Your task to perform on an android device: make emails show in primary in the gmail app Image 0: 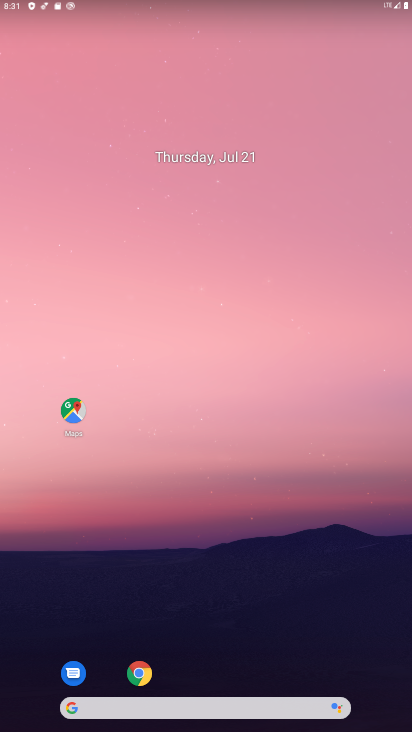
Step 0: drag from (182, 662) to (193, 264)
Your task to perform on an android device: make emails show in primary in the gmail app Image 1: 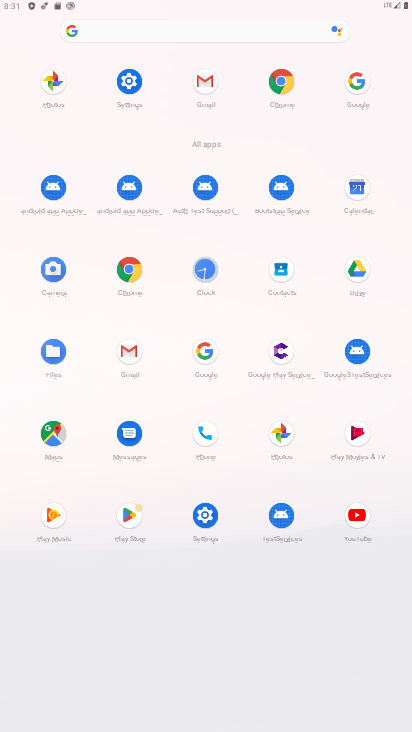
Step 1: click (206, 88)
Your task to perform on an android device: make emails show in primary in the gmail app Image 2: 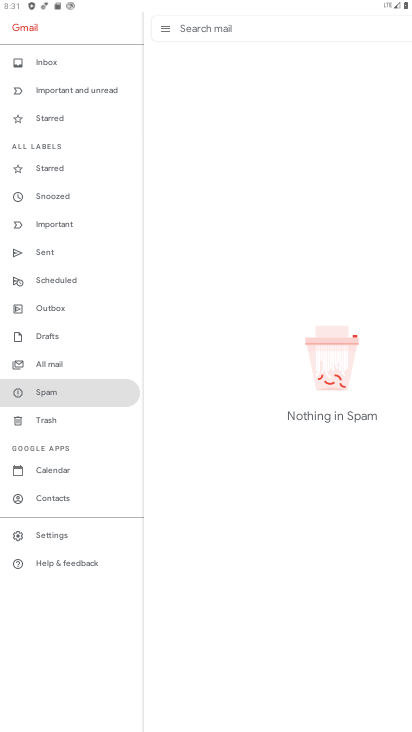
Step 2: click (55, 540)
Your task to perform on an android device: make emails show in primary in the gmail app Image 3: 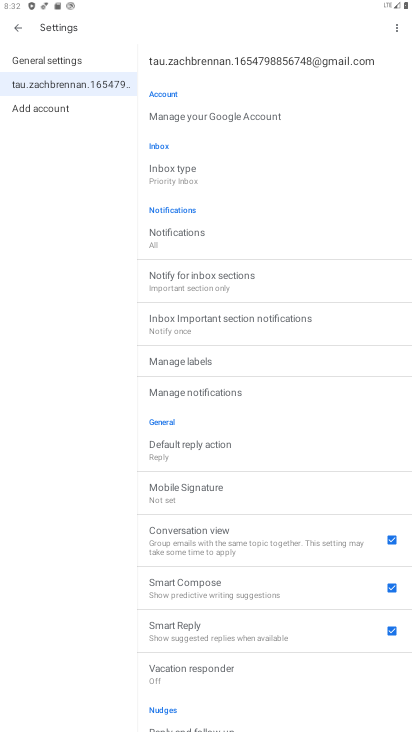
Step 3: click (193, 180)
Your task to perform on an android device: make emails show in primary in the gmail app Image 4: 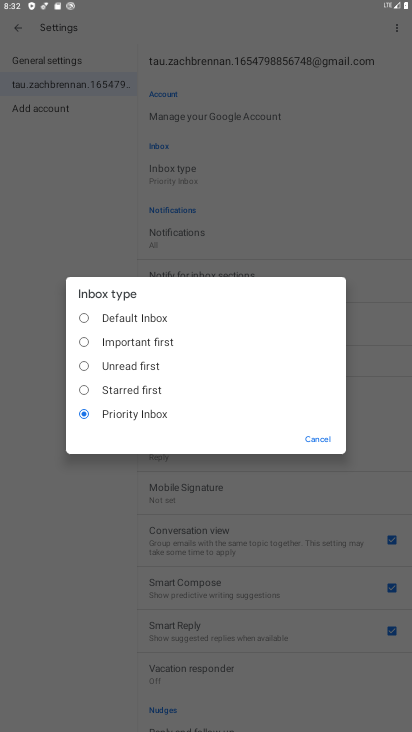
Step 4: click (130, 316)
Your task to perform on an android device: make emails show in primary in the gmail app Image 5: 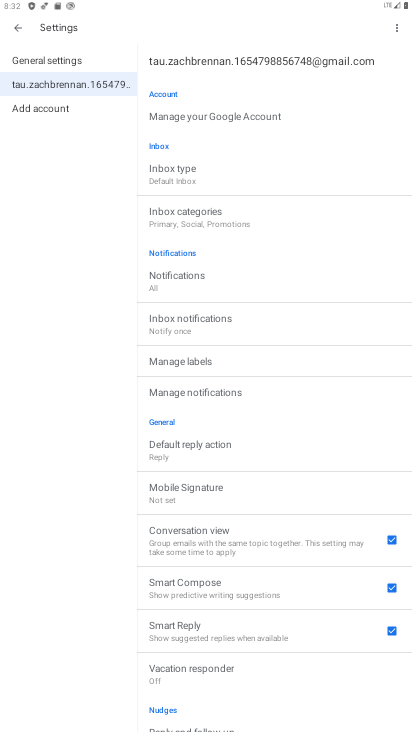
Step 5: task complete